Your task to perform on an android device: Go to Google maps Image 0: 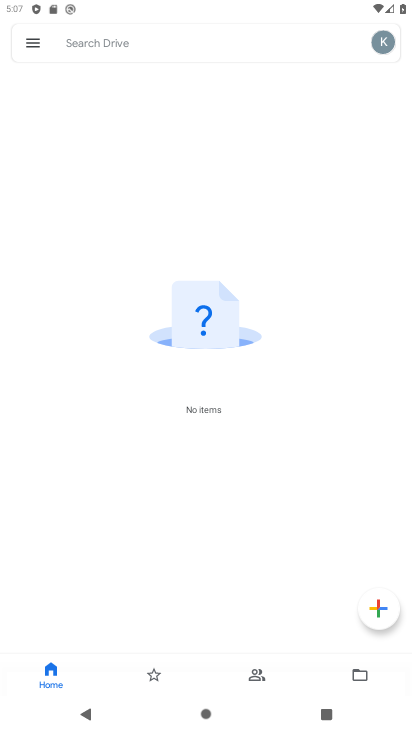
Step 0: press home button
Your task to perform on an android device: Go to Google maps Image 1: 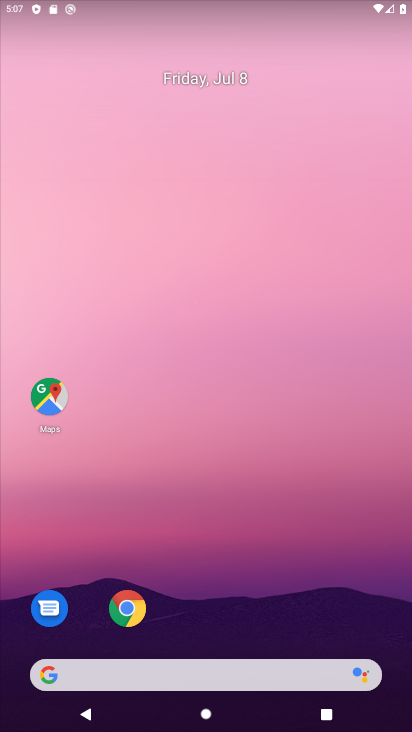
Step 1: drag from (342, 630) to (377, 56)
Your task to perform on an android device: Go to Google maps Image 2: 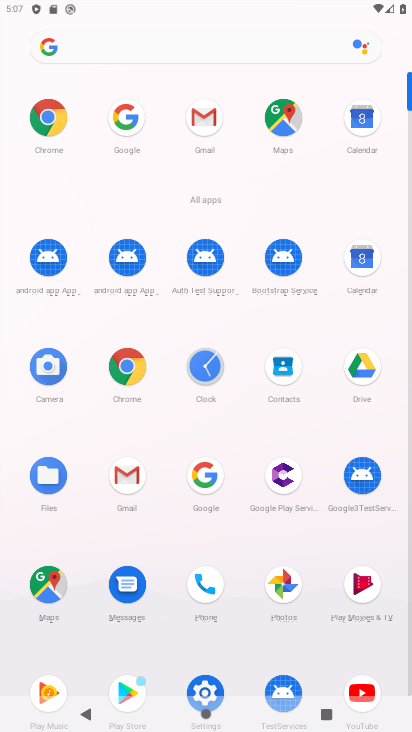
Step 2: click (44, 585)
Your task to perform on an android device: Go to Google maps Image 3: 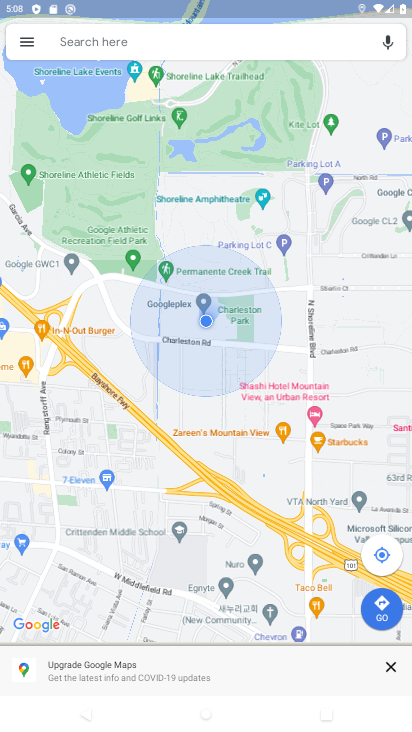
Step 3: task complete